Your task to perform on an android device: make emails show in primary in the gmail app Image 0: 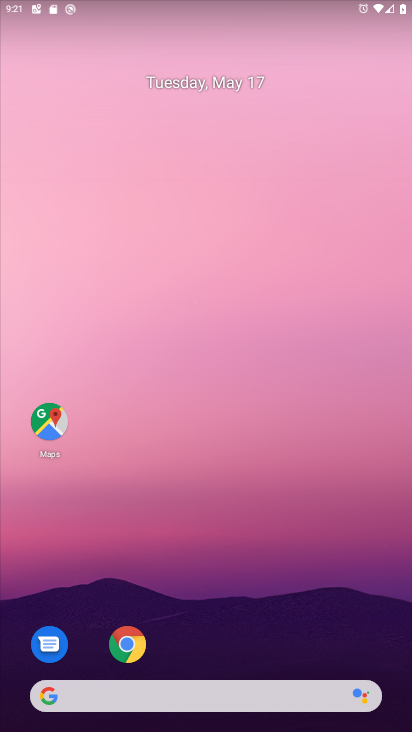
Step 0: press home button
Your task to perform on an android device: make emails show in primary in the gmail app Image 1: 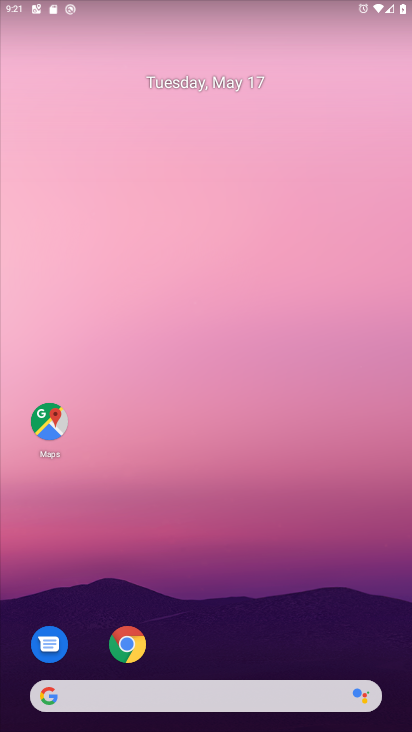
Step 1: drag from (192, 662) to (214, 1)
Your task to perform on an android device: make emails show in primary in the gmail app Image 2: 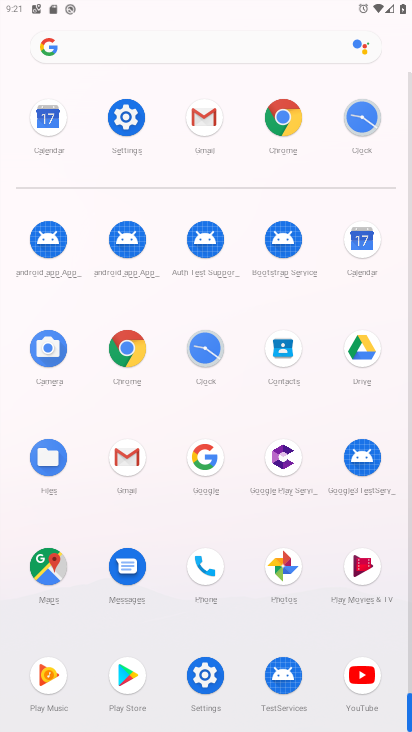
Step 2: click (206, 114)
Your task to perform on an android device: make emails show in primary in the gmail app Image 3: 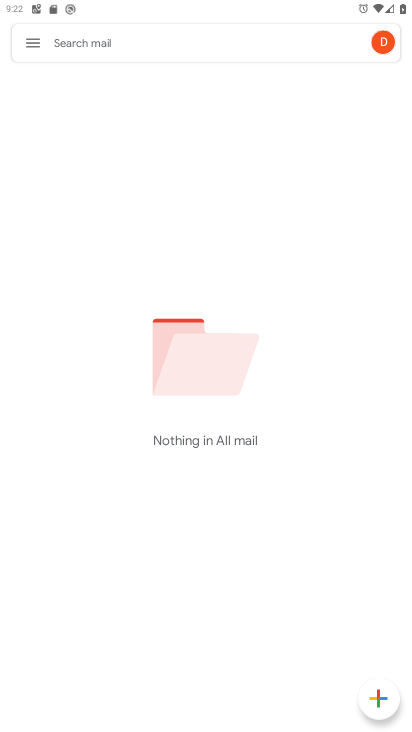
Step 3: click (34, 43)
Your task to perform on an android device: make emails show in primary in the gmail app Image 4: 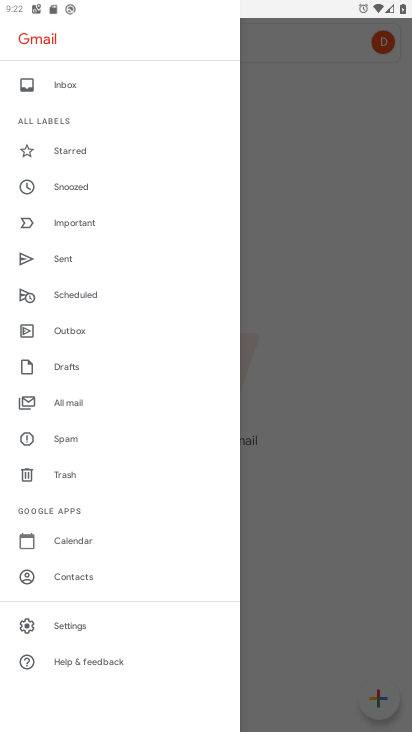
Step 4: click (89, 624)
Your task to perform on an android device: make emails show in primary in the gmail app Image 5: 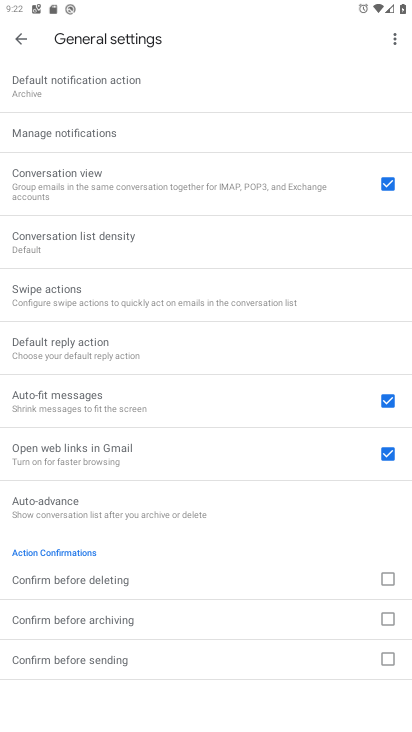
Step 5: click (15, 32)
Your task to perform on an android device: make emails show in primary in the gmail app Image 6: 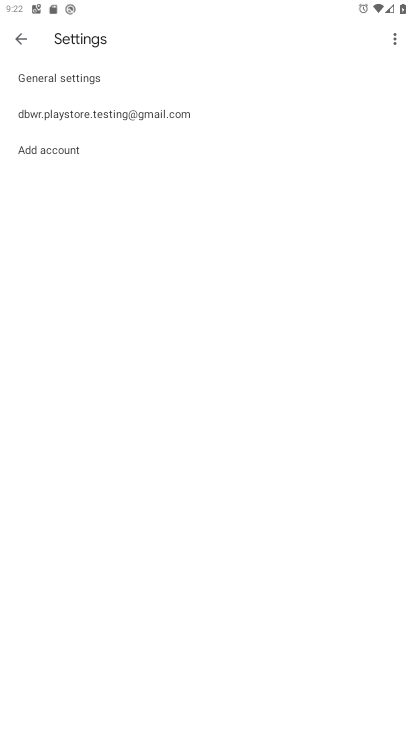
Step 6: click (120, 112)
Your task to perform on an android device: make emails show in primary in the gmail app Image 7: 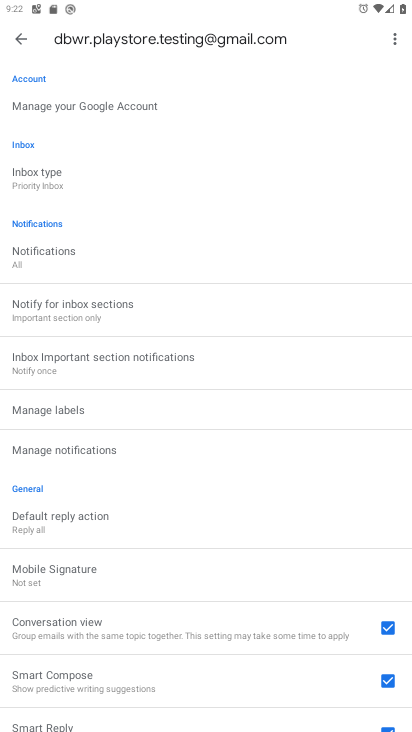
Step 7: click (71, 179)
Your task to perform on an android device: make emails show in primary in the gmail app Image 8: 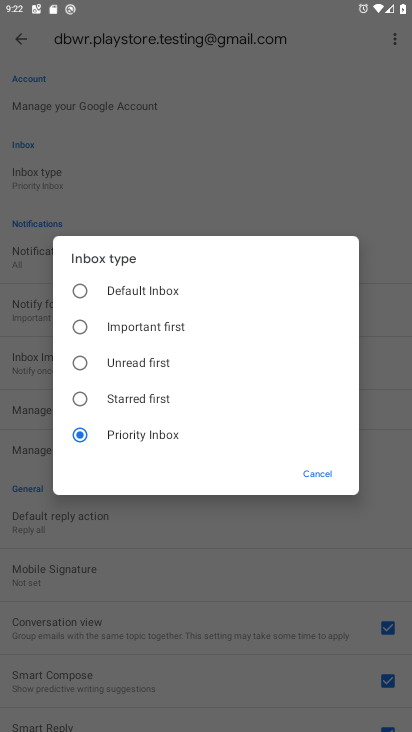
Step 8: click (83, 289)
Your task to perform on an android device: make emails show in primary in the gmail app Image 9: 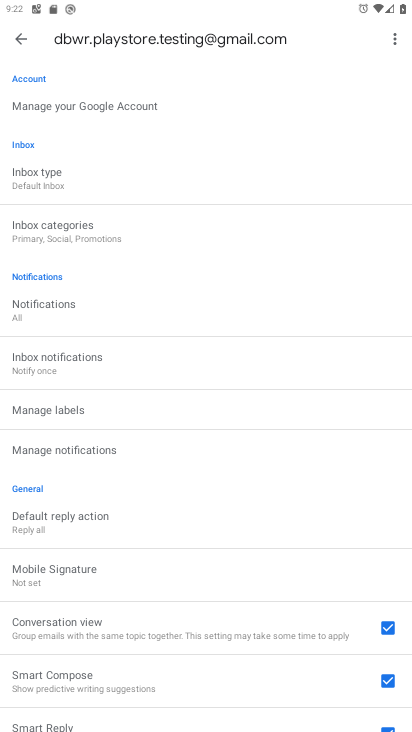
Step 9: task complete